Your task to perform on an android device: Open sound settings Image 0: 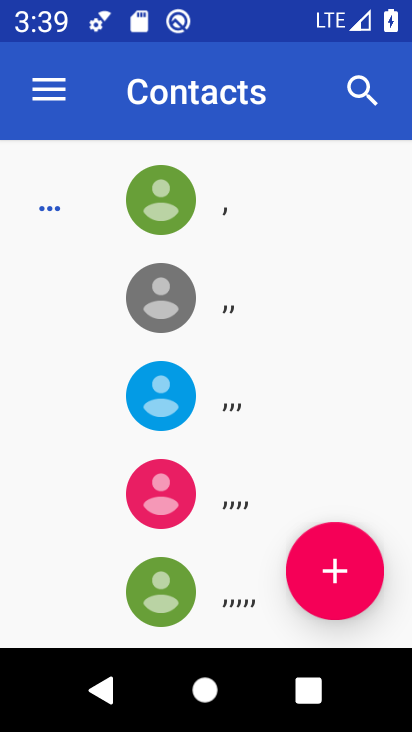
Step 0: press home button
Your task to perform on an android device: Open sound settings Image 1: 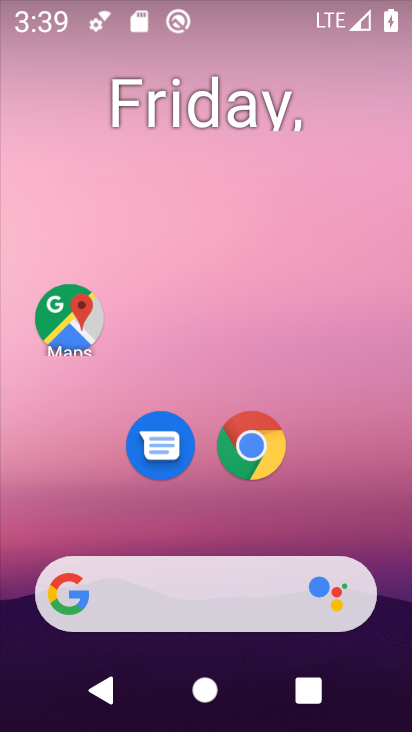
Step 1: drag from (401, 600) to (330, 167)
Your task to perform on an android device: Open sound settings Image 2: 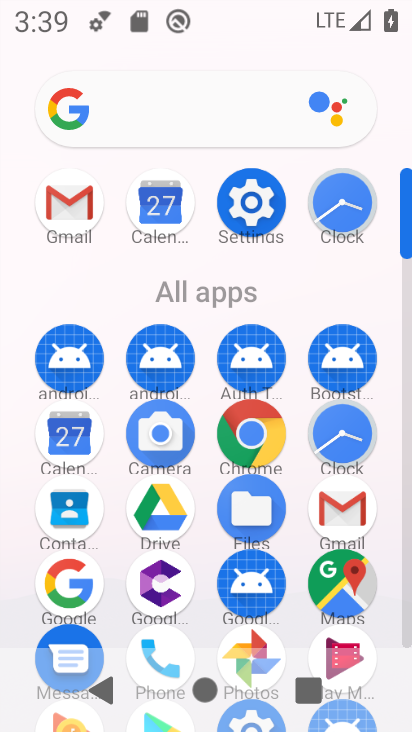
Step 2: click (247, 208)
Your task to perform on an android device: Open sound settings Image 3: 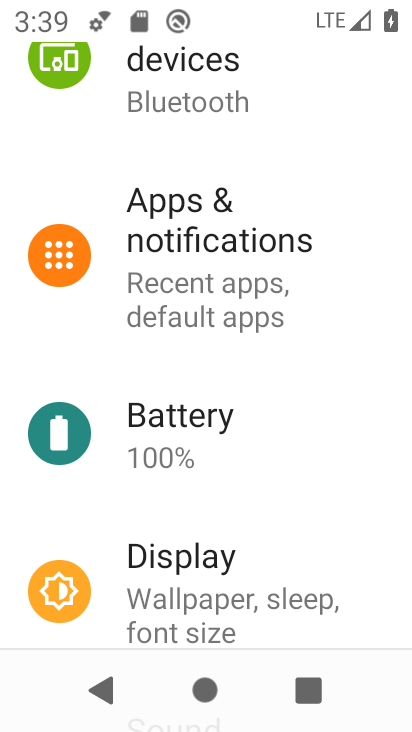
Step 3: drag from (269, 500) to (205, 129)
Your task to perform on an android device: Open sound settings Image 4: 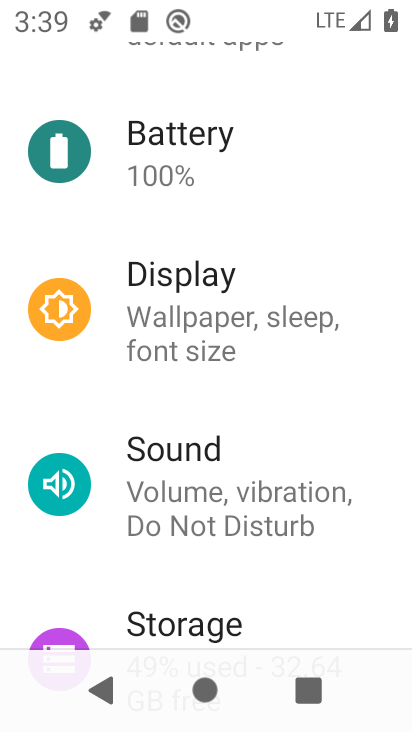
Step 4: click (237, 478)
Your task to perform on an android device: Open sound settings Image 5: 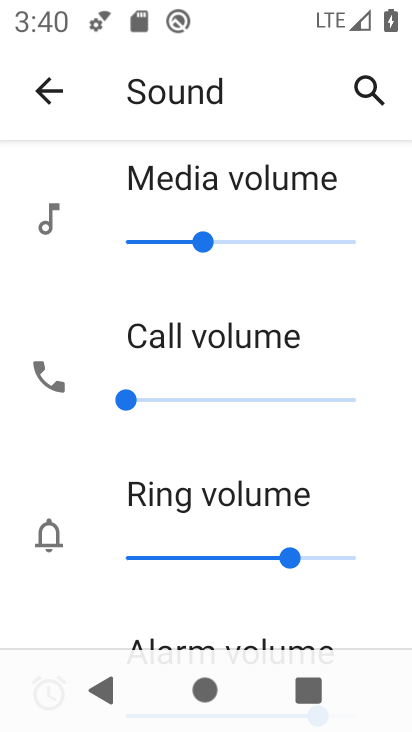
Step 5: task complete